Your task to perform on an android device: What's the weather going to be this weekend? Image 0: 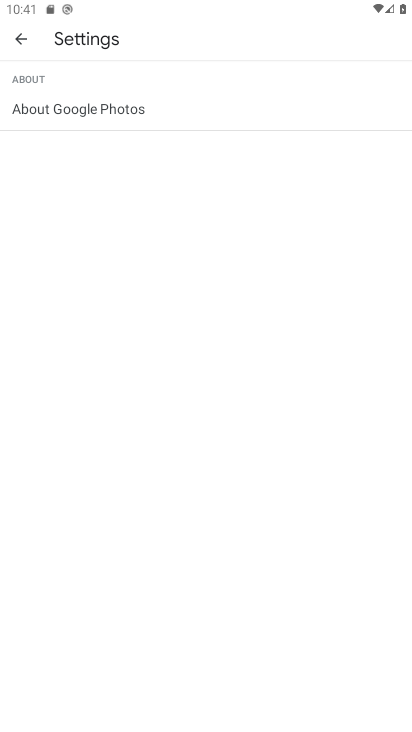
Step 0: press home button
Your task to perform on an android device: What's the weather going to be this weekend? Image 1: 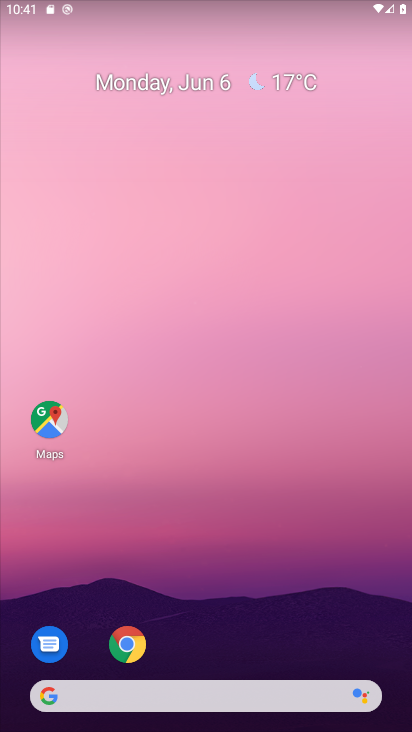
Step 1: drag from (194, 682) to (154, 199)
Your task to perform on an android device: What's the weather going to be this weekend? Image 2: 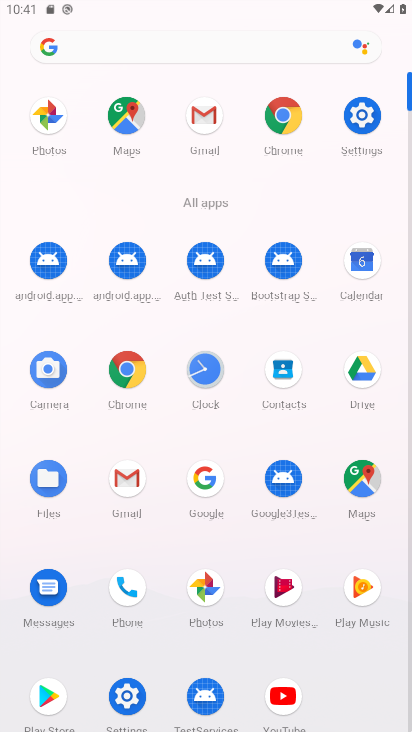
Step 2: click (195, 481)
Your task to perform on an android device: What's the weather going to be this weekend? Image 3: 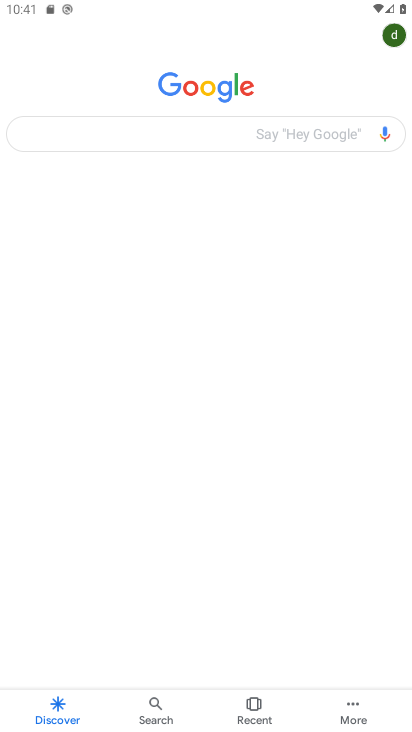
Step 3: click (129, 140)
Your task to perform on an android device: What's the weather going to be this weekend? Image 4: 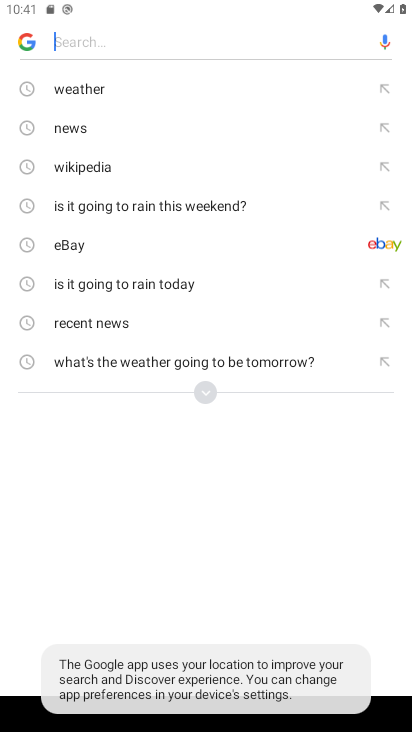
Step 4: click (211, 390)
Your task to perform on an android device: What's the weather going to be this weekend? Image 5: 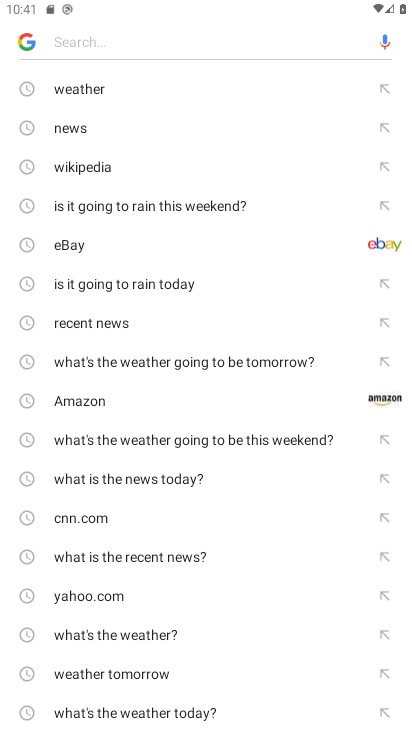
Step 5: click (168, 439)
Your task to perform on an android device: What's the weather going to be this weekend? Image 6: 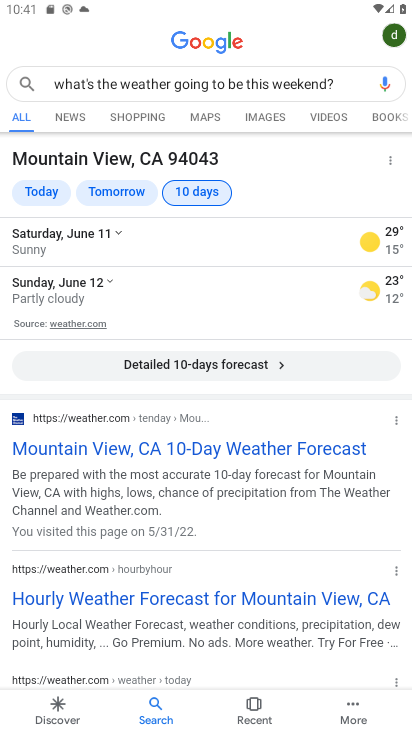
Step 6: task complete